Your task to perform on an android device: Go to Yahoo.com Image 0: 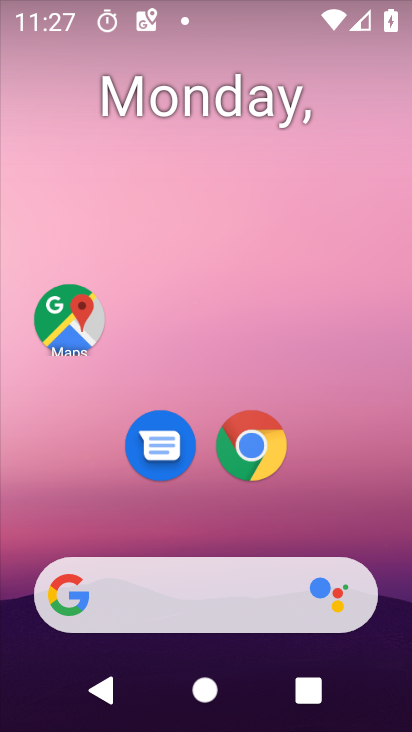
Step 0: click (242, 444)
Your task to perform on an android device: Go to Yahoo.com Image 1: 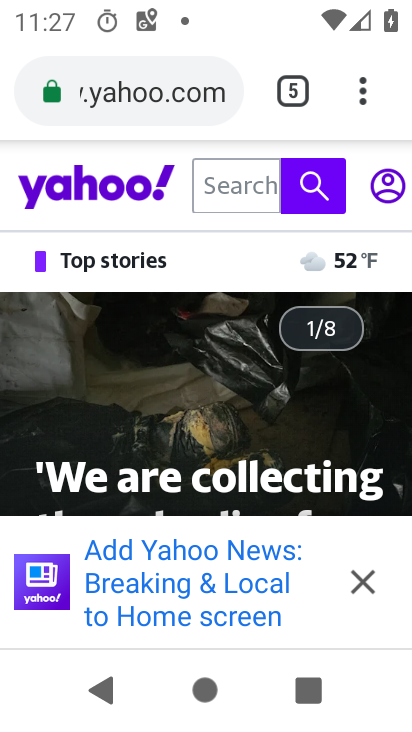
Step 1: task complete